Your task to perform on an android device: toggle data saver in the chrome app Image 0: 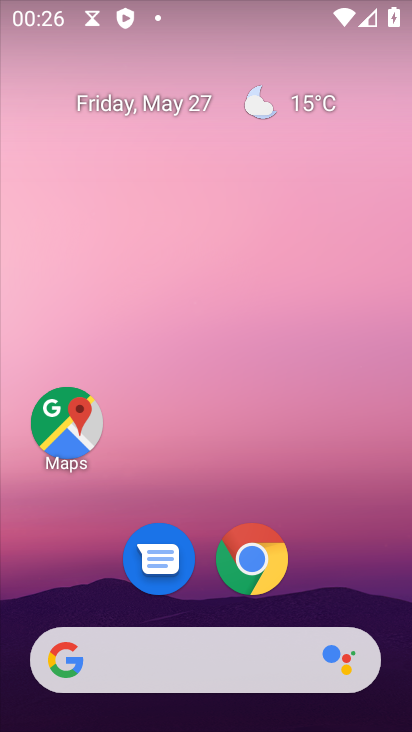
Step 0: click (255, 569)
Your task to perform on an android device: toggle data saver in the chrome app Image 1: 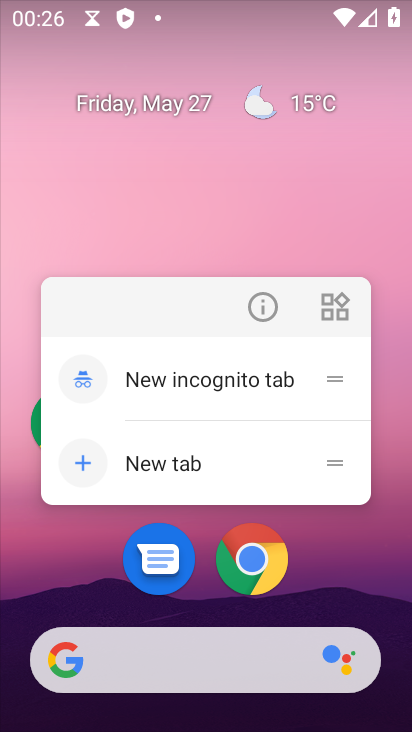
Step 1: click (264, 567)
Your task to perform on an android device: toggle data saver in the chrome app Image 2: 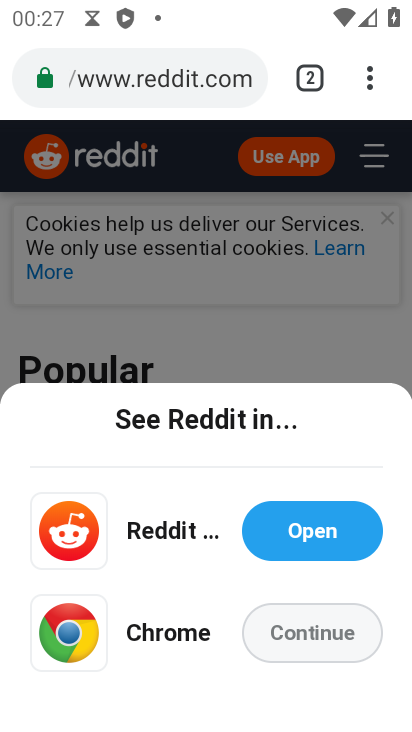
Step 2: click (375, 87)
Your task to perform on an android device: toggle data saver in the chrome app Image 3: 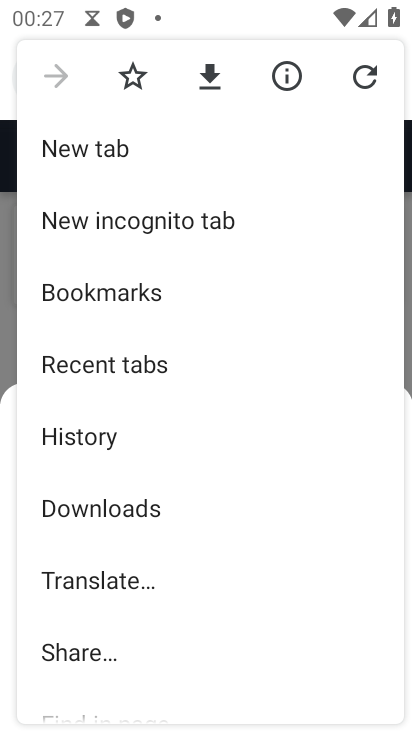
Step 3: drag from (251, 598) to (212, 18)
Your task to perform on an android device: toggle data saver in the chrome app Image 4: 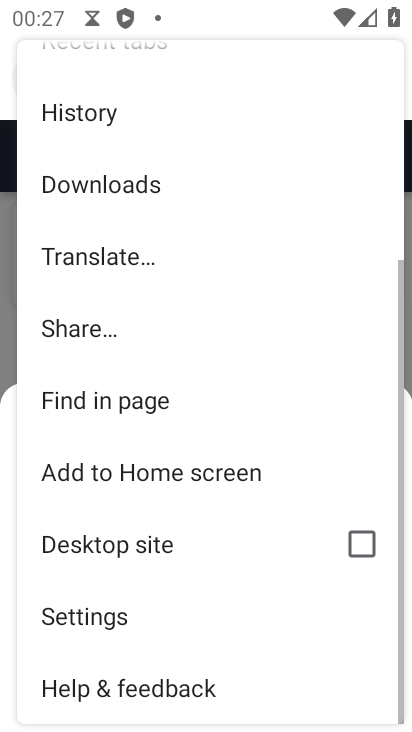
Step 4: click (200, 615)
Your task to perform on an android device: toggle data saver in the chrome app Image 5: 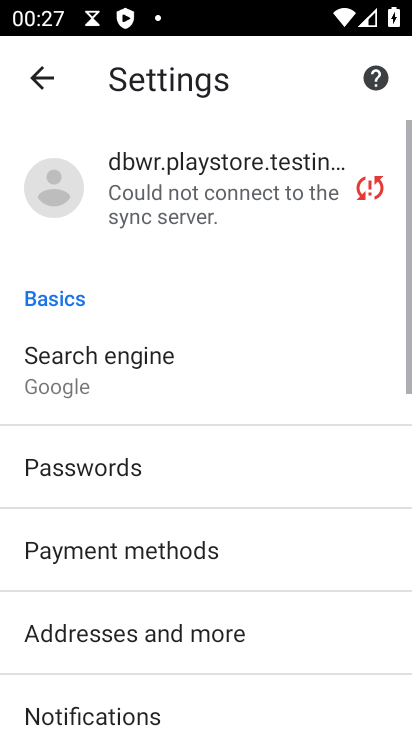
Step 5: click (207, 46)
Your task to perform on an android device: toggle data saver in the chrome app Image 6: 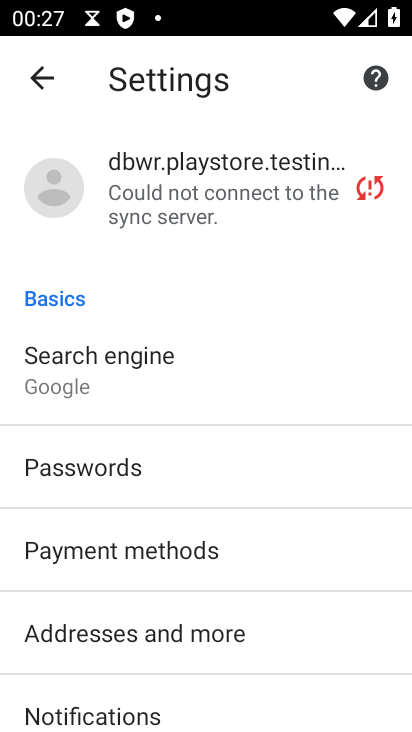
Step 6: drag from (238, 536) to (226, 117)
Your task to perform on an android device: toggle data saver in the chrome app Image 7: 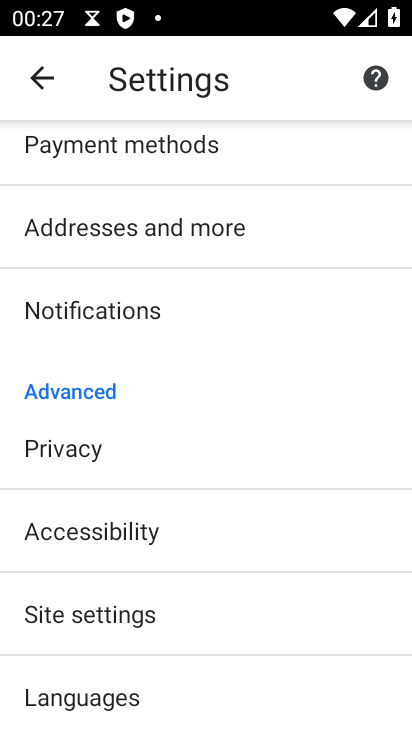
Step 7: drag from (163, 652) to (186, 243)
Your task to perform on an android device: toggle data saver in the chrome app Image 8: 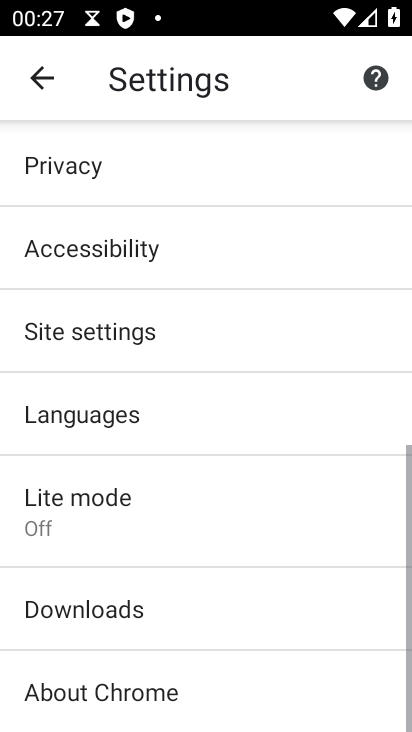
Step 8: click (143, 531)
Your task to perform on an android device: toggle data saver in the chrome app Image 9: 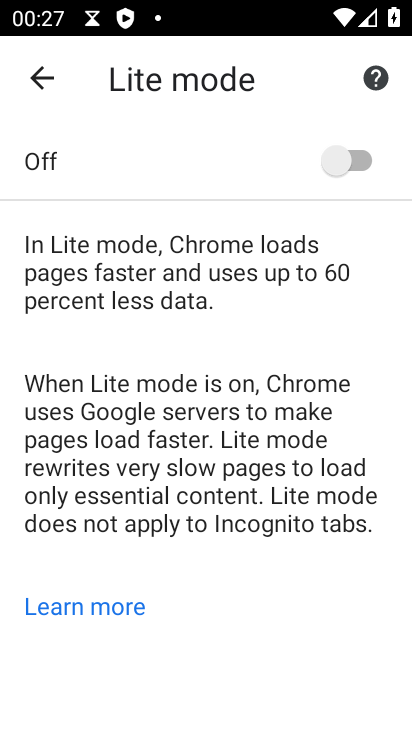
Step 9: click (346, 167)
Your task to perform on an android device: toggle data saver in the chrome app Image 10: 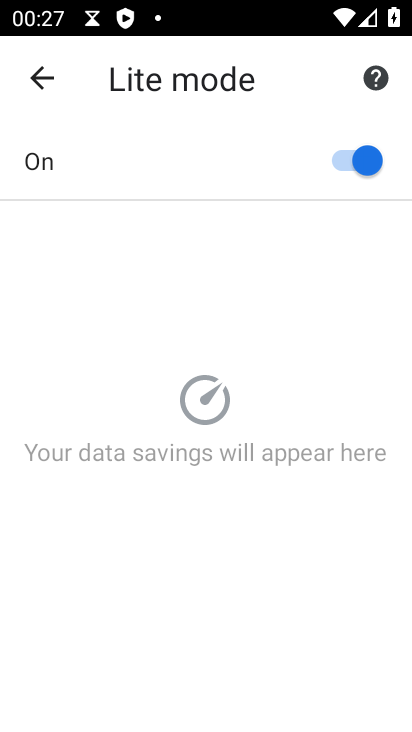
Step 10: task complete